Your task to perform on an android device: remove spam from my inbox in the gmail app Image 0: 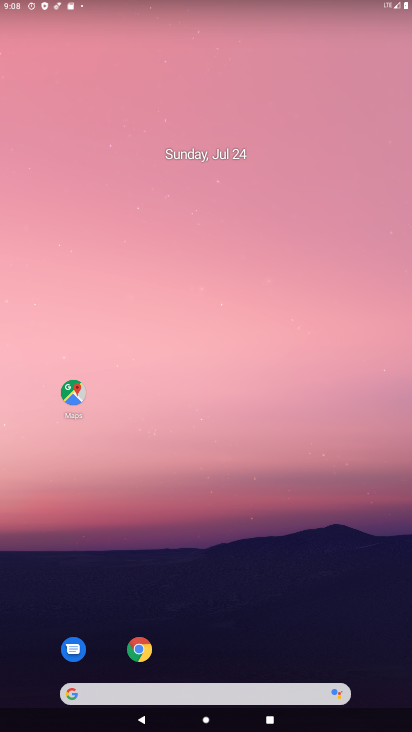
Step 0: drag from (52, 643) to (281, 209)
Your task to perform on an android device: remove spam from my inbox in the gmail app Image 1: 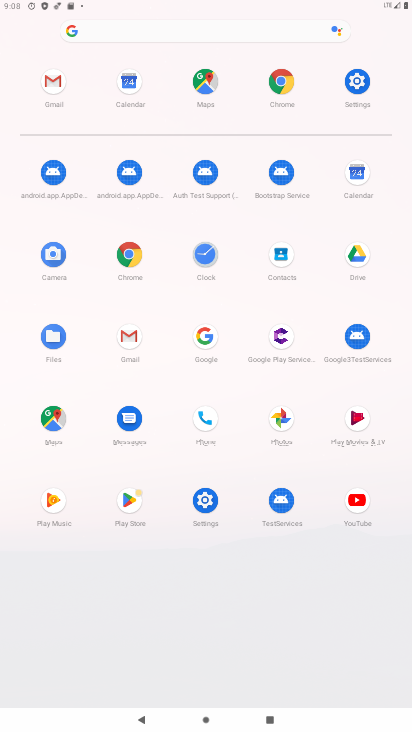
Step 1: click (129, 339)
Your task to perform on an android device: remove spam from my inbox in the gmail app Image 2: 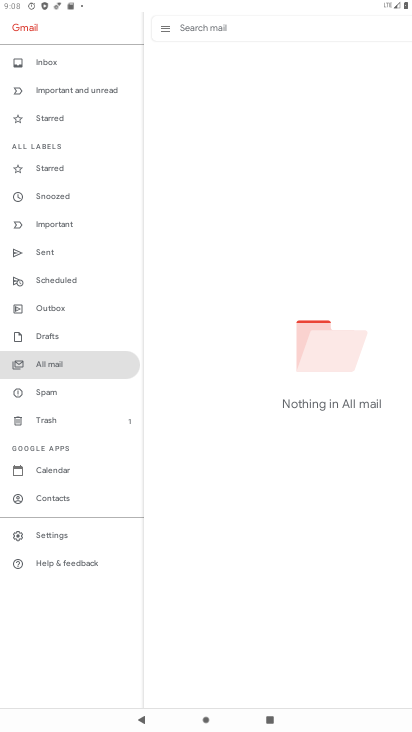
Step 2: click (39, 393)
Your task to perform on an android device: remove spam from my inbox in the gmail app Image 3: 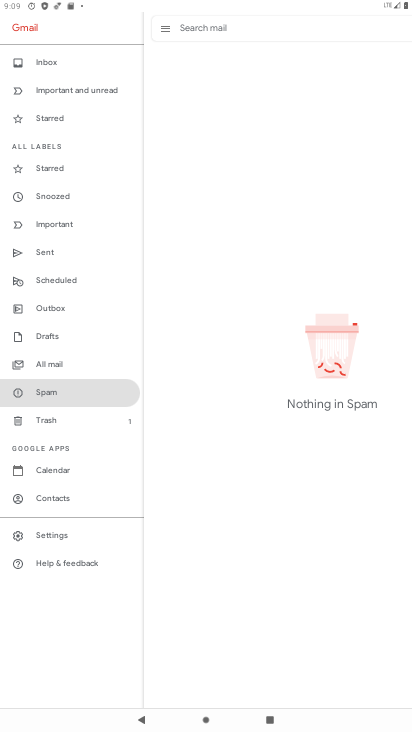
Step 3: task complete